Your task to perform on an android device: turn off priority inbox in the gmail app Image 0: 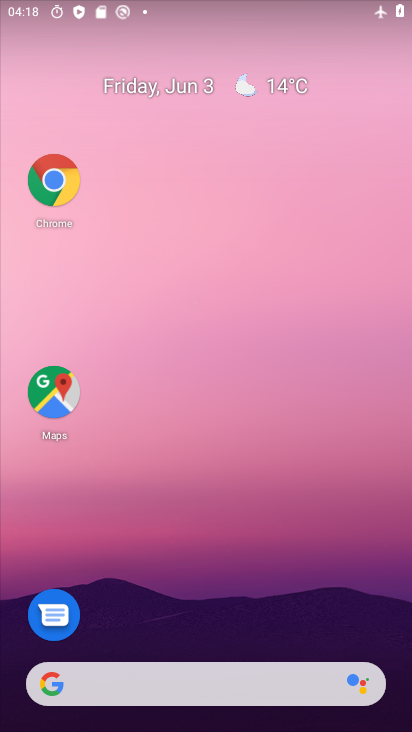
Step 0: drag from (118, 726) to (162, 10)
Your task to perform on an android device: turn off priority inbox in the gmail app Image 1: 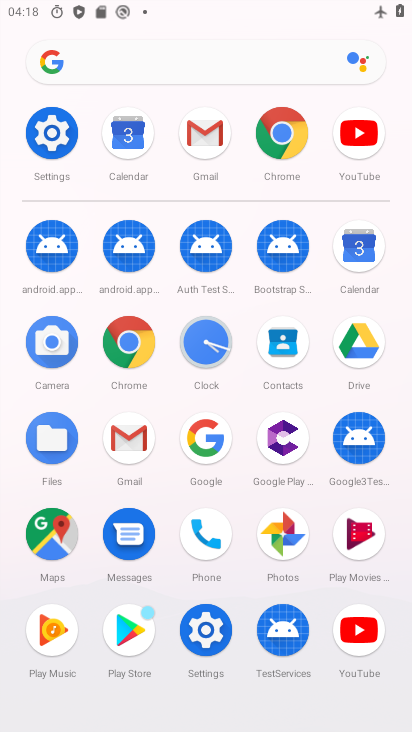
Step 1: click (216, 138)
Your task to perform on an android device: turn off priority inbox in the gmail app Image 2: 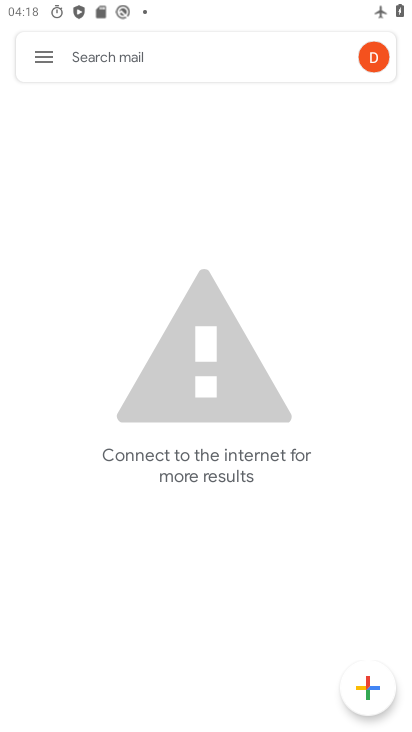
Step 2: click (38, 61)
Your task to perform on an android device: turn off priority inbox in the gmail app Image 3: 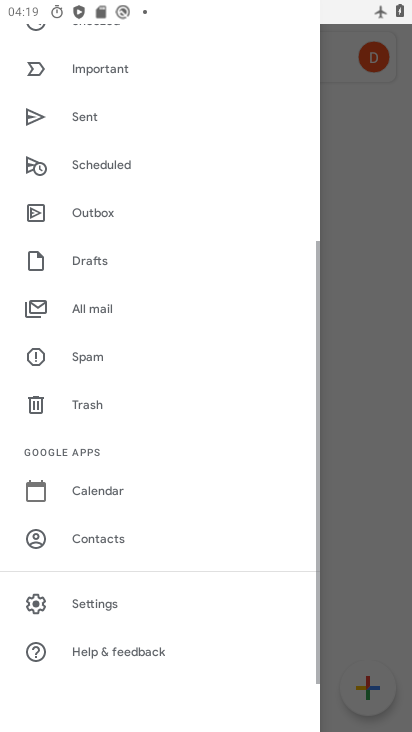
Step 3: click (86, 595)
Your task to perform on an android device: turn off priority inbox in the gmail app Image 4: 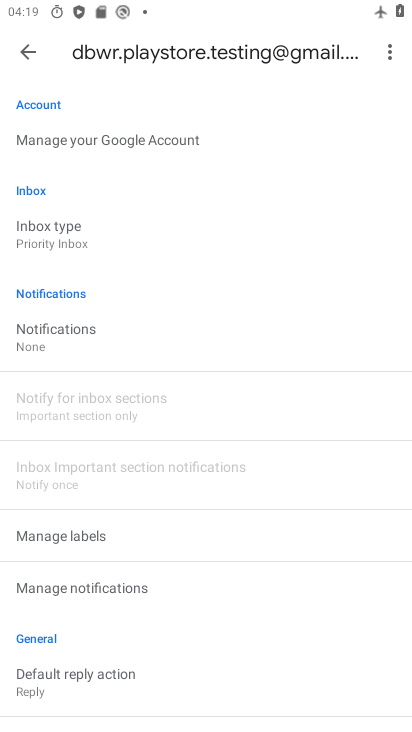
Step 4: click (76, 244)
Your task to perform on an android device: turn off priority inbox in the gmail app Image 5: 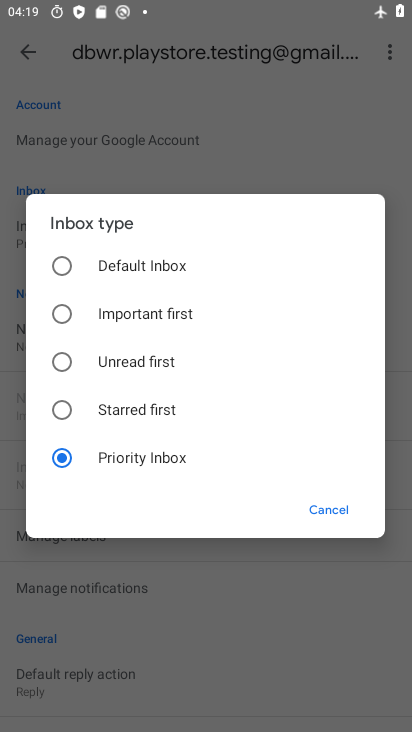
Step 5: click (123, 264)
Your task to perform on an android device: turn off priority inbox in the gmail app Image 6: 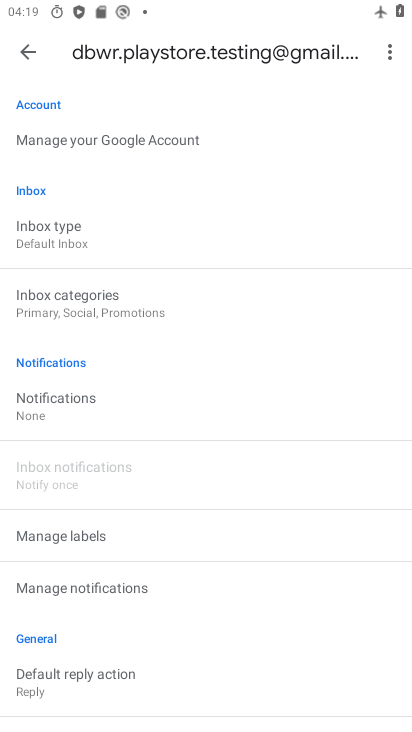
Step 6: task complete